Your task to perform on an android device: Go to CNN.com Image 0: 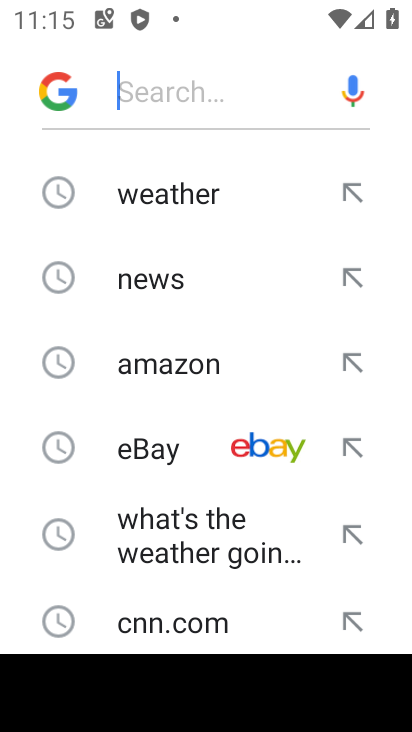
Step 0: press home button
Your task to perform on an android device: Go to CNN.com Image 1: 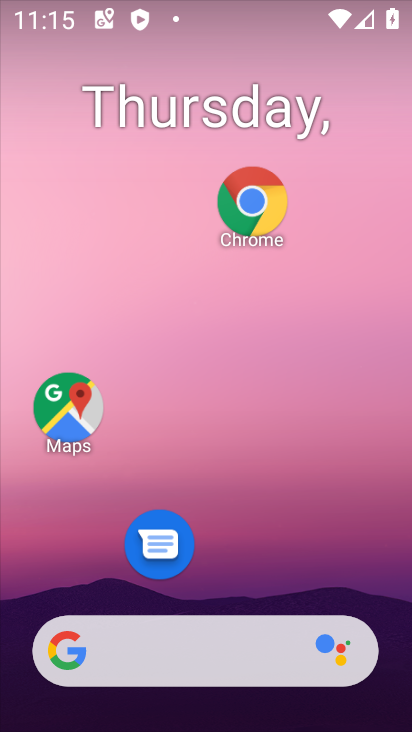
Step 1: click (246, 192)
Your task to perform on an android device: Go to CNN.com Image 2: 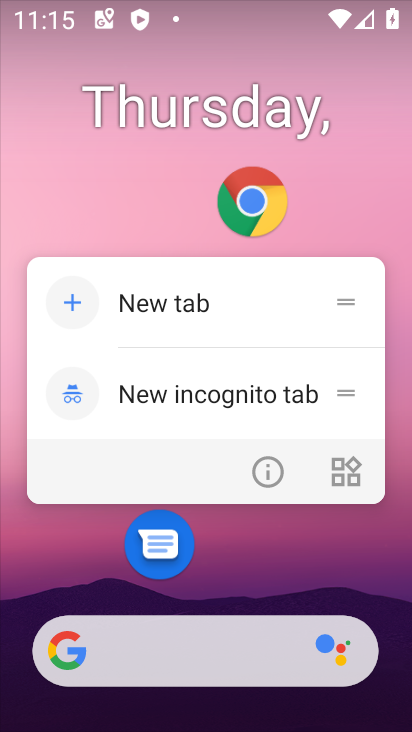
Step 2: click (248, 194)
Your task to perform on an android device: Go to CNN.com Image 3: 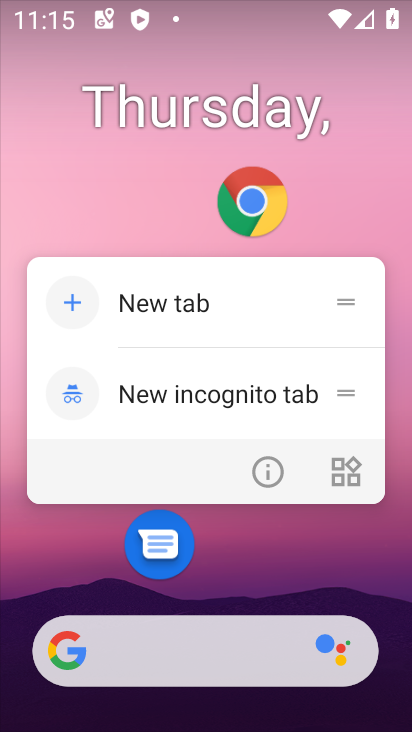
Step 3: click (250, 196)
Your task to perform on an android device: Go to CNN.com Image 4: 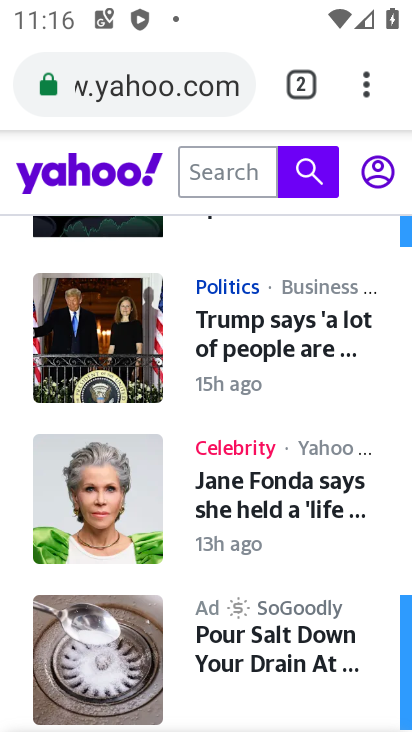
Step 4: press back button
Your task to perform on an android device: Go to CNN.com Image 5: 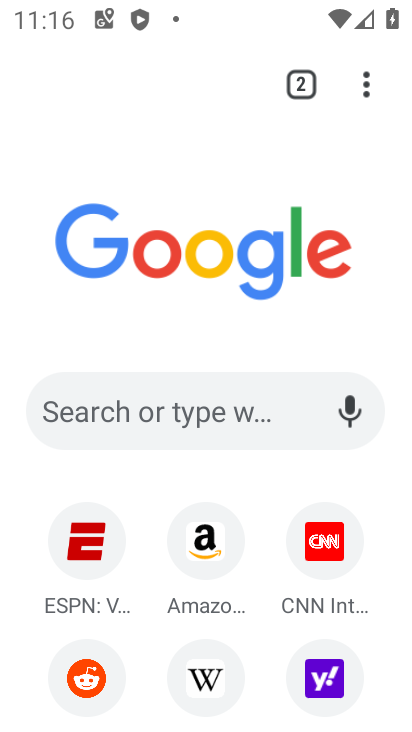
Step 5: click (322, 536)
Your task to perform on an android device: Go to CNN.com Image 6: 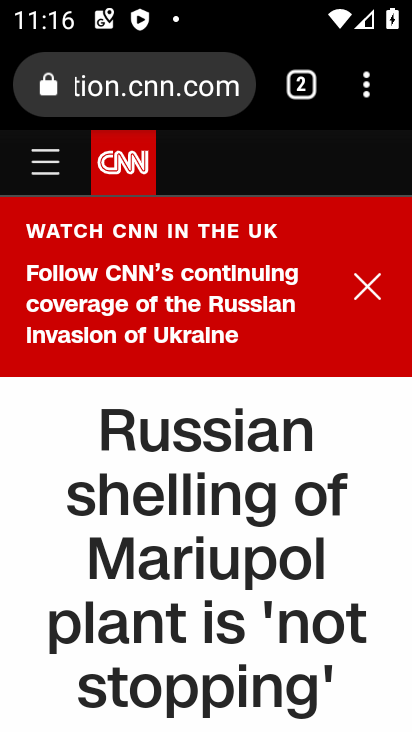
Step 6: click (365, 281)
Your task to perform on an android device: Go to CNN.com Image 7: 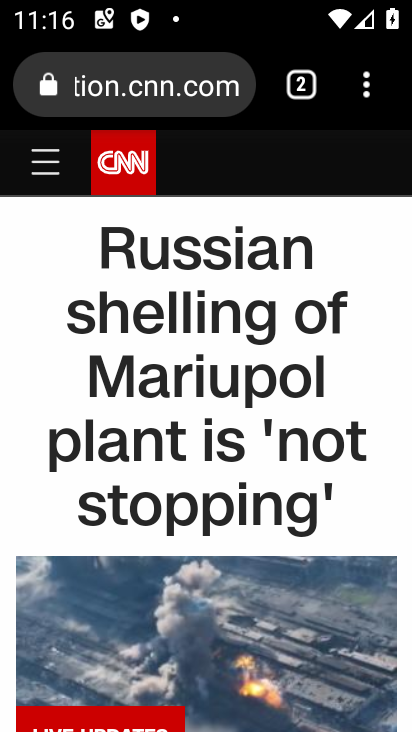
Step 7: task complete